Your task to perform on an android device: Show me the alarms in the clock app Image 0: 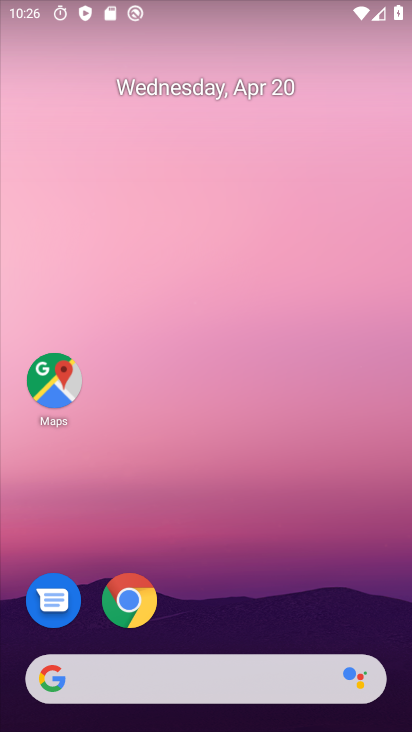
Step 0: drag from (300, 603) to (305, 78)
Your task to perform on an android device: Show me the alarms in the clock app Image 1: 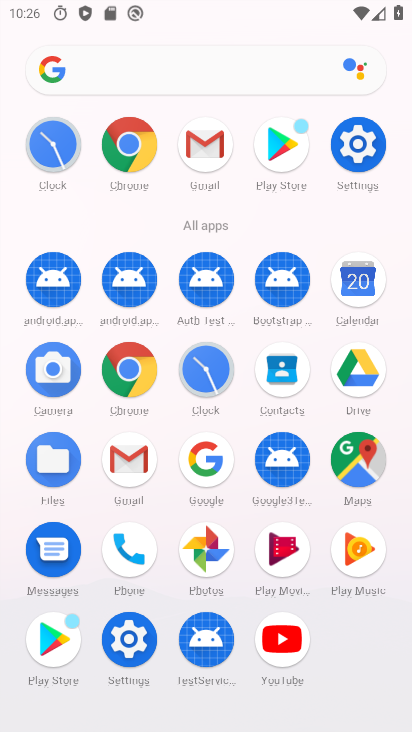
Step 1: click (209, 365)
Your task to perform on an android device: Show me the alarms in the clock app Image 2: 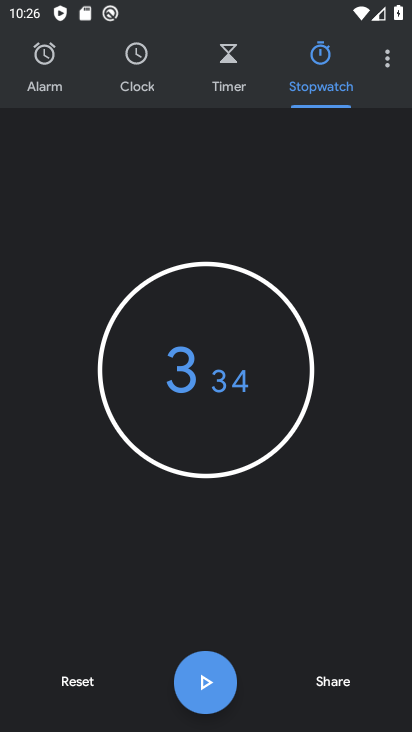
Step 2: click (51, 67)
Your task to perform on an android device: Show me the alarms in the clock app Image 3: 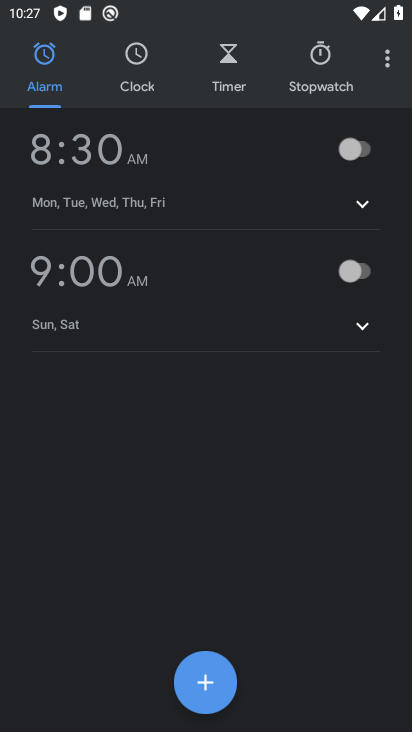
Step 3: task complete